Your task to perform on an android device: What is the news today? Image 0: 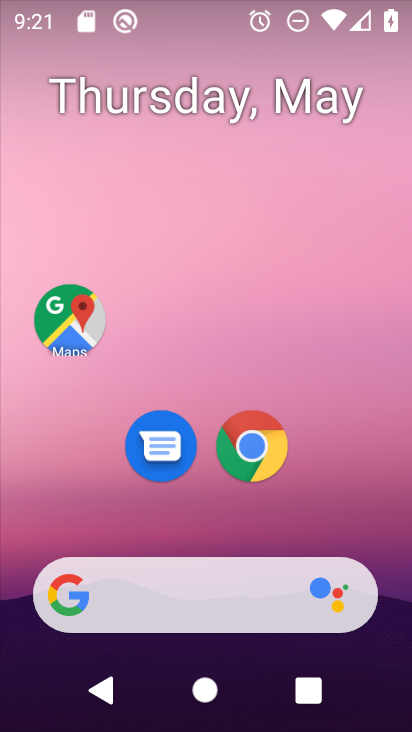
Step 0: drag from (372, 519) to (342, 135)
Your task to perform on an android device: What is the news today? Image 1: 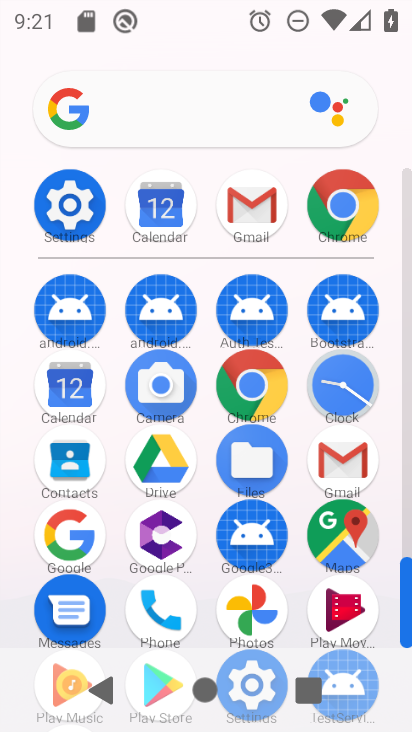
Step 1: click (267, 388)
Your task to perform on an android device: What is the news today? Image 2: 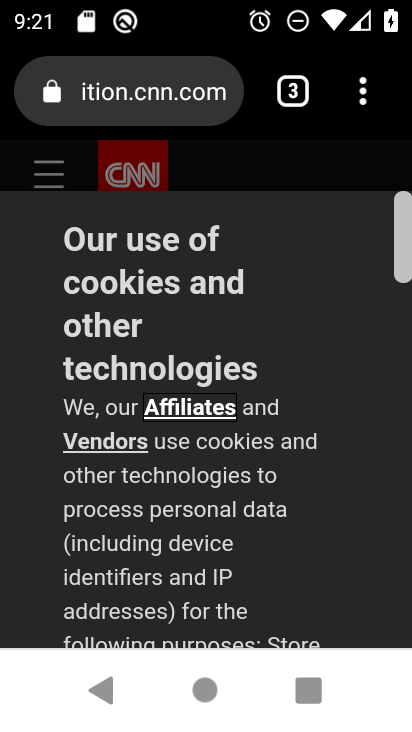
Step 2: click (166, 106)
Your task to perform on an android device: What is the news today? Image 3: 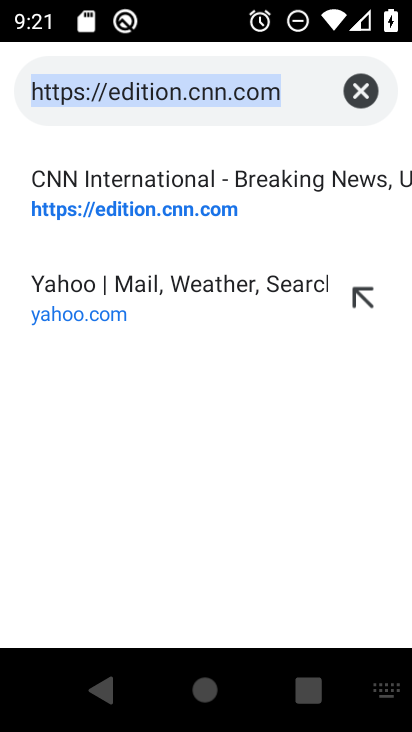
Step 3: click (354, 95)
Your task to perform on an android device: What is the news today? Image 4: 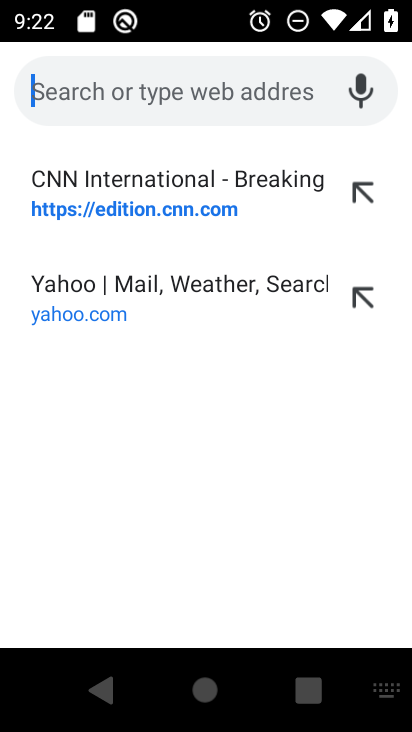
Step 4: type "what is the news today"
Your task to perform on an android device: What is the news today? Image 5: 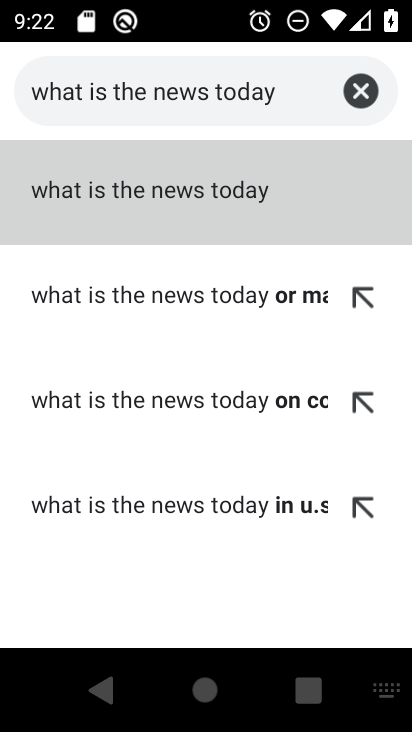
Step 5: click (190, 216)
Your task to perform on an android device: What is the news today? Image 6: 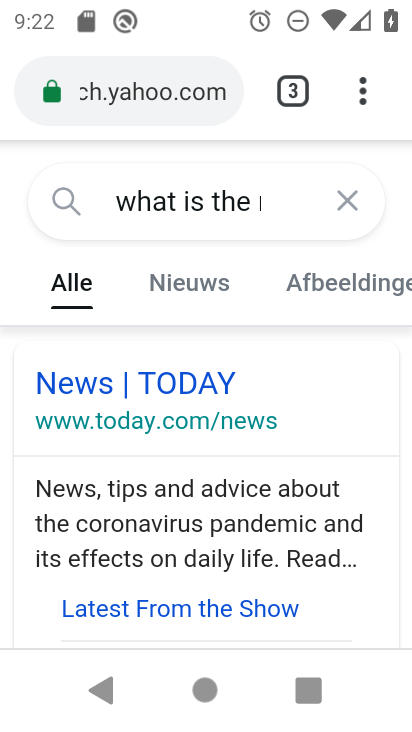
Step 6: drag from (175, 539) to (175, 192)
Your task to perform on an android device: What is the news today? Image 7: 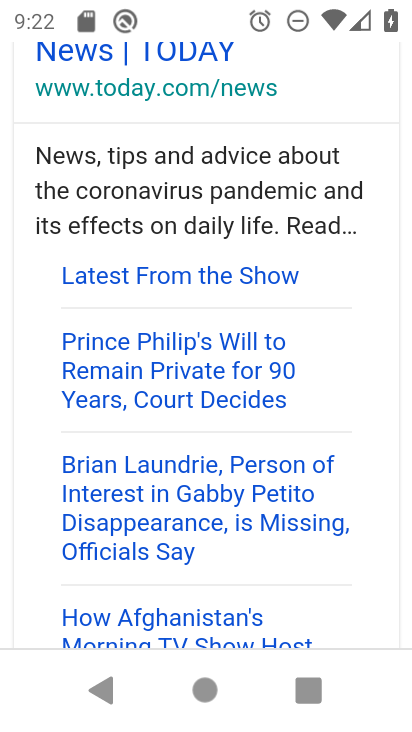
Step 7: click (134, 42)
Your task to perform on an android device: What is the news today? Image 8: 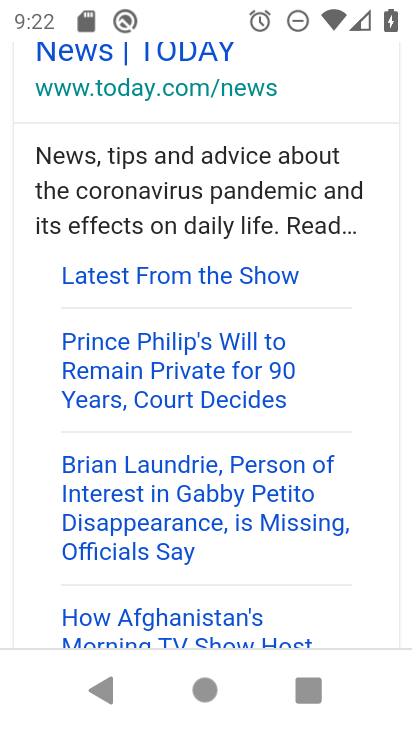
Step 8: drag from (249, 156) to (300, 436)
Your task to perform on an android device: What is the news today? Image 9: 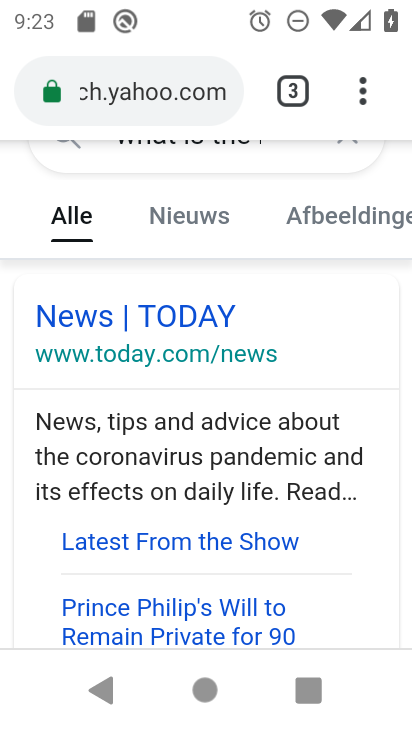
Step 9: click (74, 306)
Your task to perform on an android device: What is the news today? Image 10: 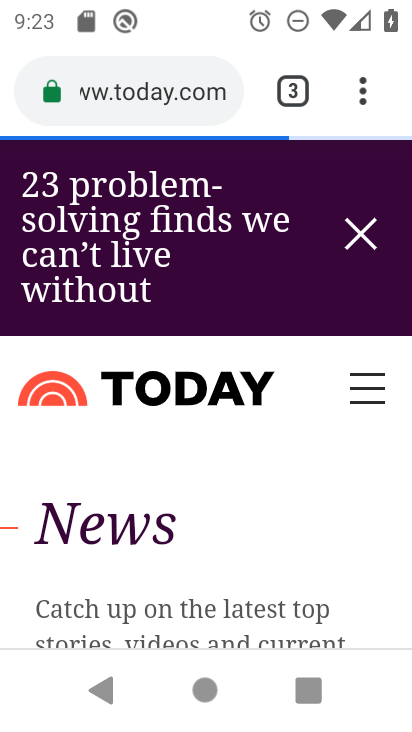
Step 10: task complete